Your task to perform on an android device: Open Google Chrome Image 0: 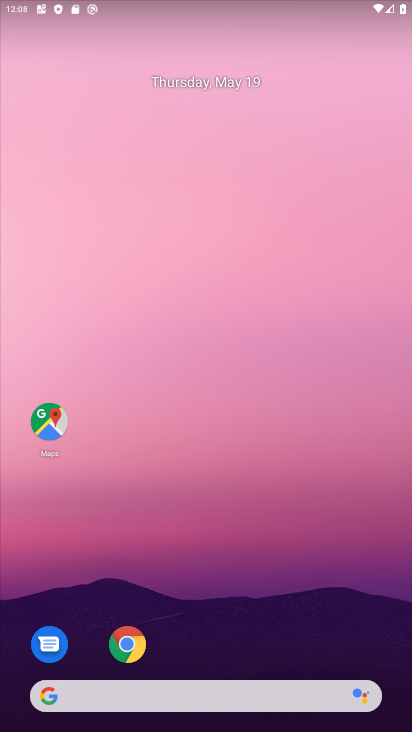
Step 0: drag from (274, 628) to (279, 243)
Your task to perform on an android device: Open Google Chrome Image 1: 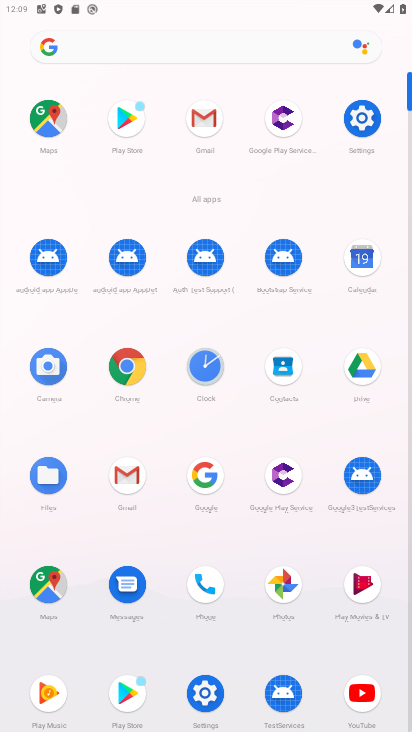
Step 1: click (129, 372)
Your task to perform on an android device: Open Google Chrome Image 2: 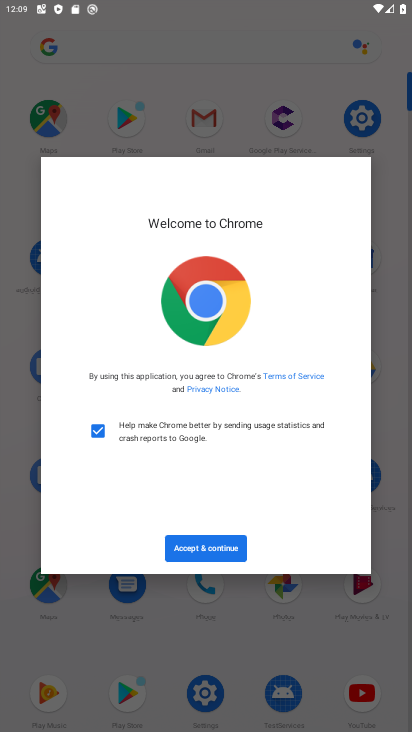
Step 2: click (226, 551)
Your task to perform on an android device: Open Google Chrome Image 3: 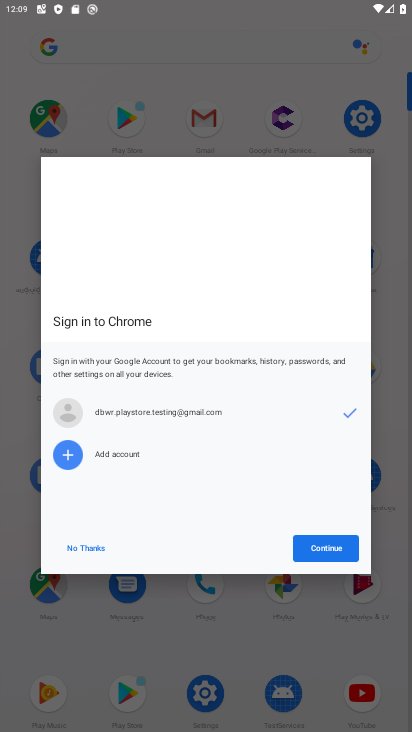
Step 3: click (303, 552)
Your task to perform on an android device: Open Google Chrome Image 4: 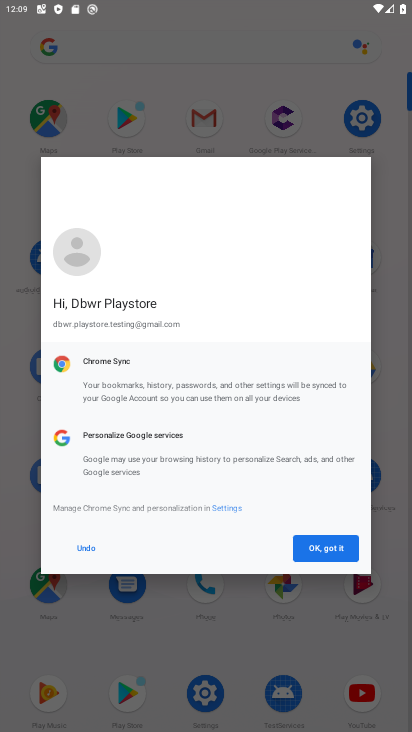
Step 4: click (330, 549)
Your task to perform on an android device: Open Google Chrome Image 5: 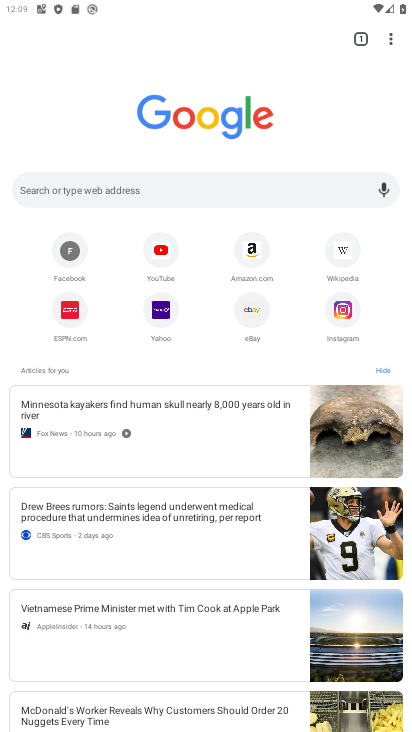
Step 5: task complete